Your task to perform on an android device: toggle pop-ups in chrome Image 0: 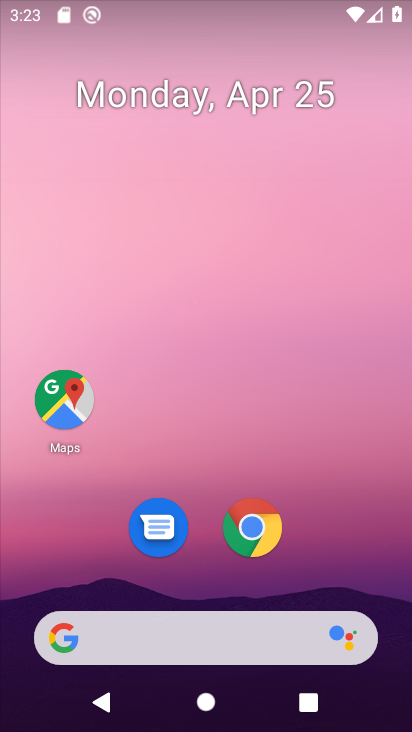
Step 0: click (253, 522)
Your task to perform on an android device: toggle pop-ups in chrome Image 1: 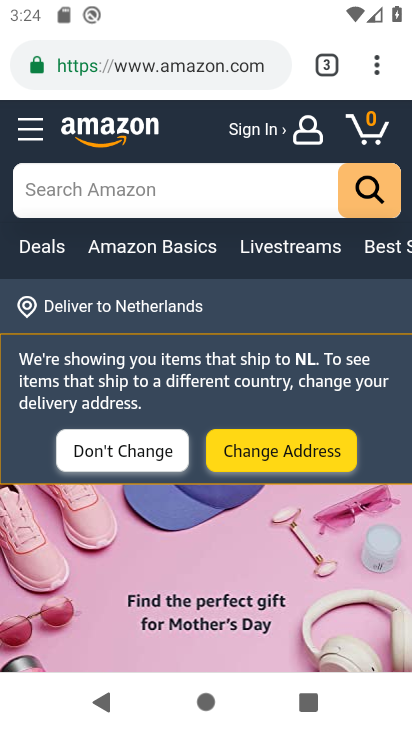
Step 1: click (373, 66)
Your task to perform on an android device: toggle pop-ups in chrome Image 2: 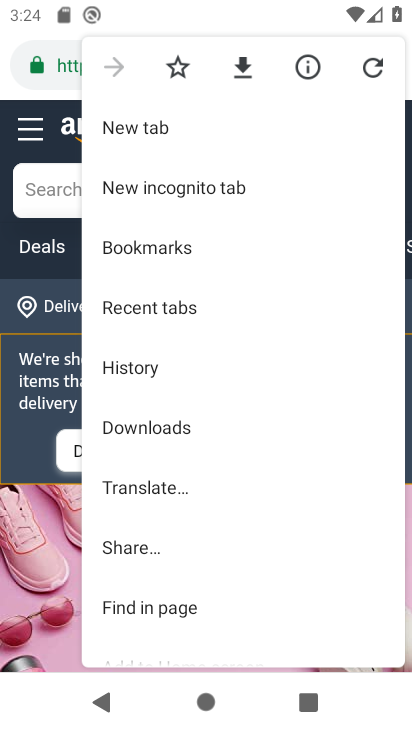
Step 2: drag from (237, 607) to (246, 295)
Your task to perform on an android device: toggle pop-ups in chrome Image 3: 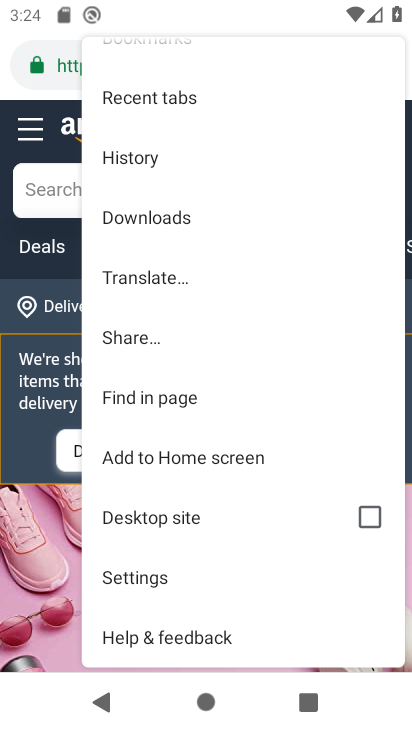
Step 3: click (113, 572)
Your task to perform on an android device: toggle pop-ups in chrome Image 4: 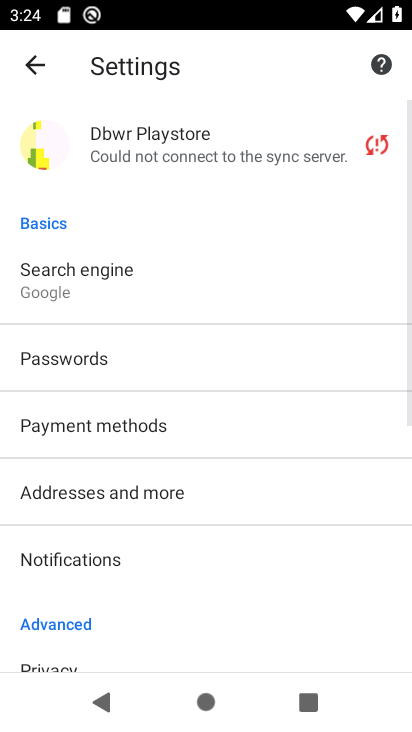
Step 4: drag from (175, 604) to (184, 185)
Your task to perform on an android device: toggle pop-ups in chrome Image 5: 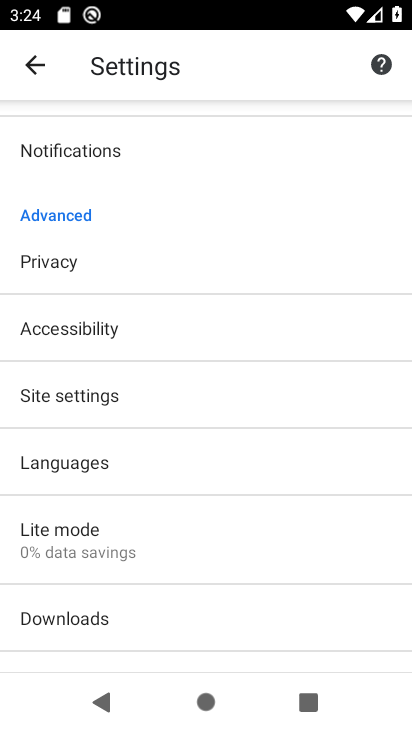
Step 5: click (71, 390)
Your task to perform on an android device: toggle pop-ups in chrome Image 6: 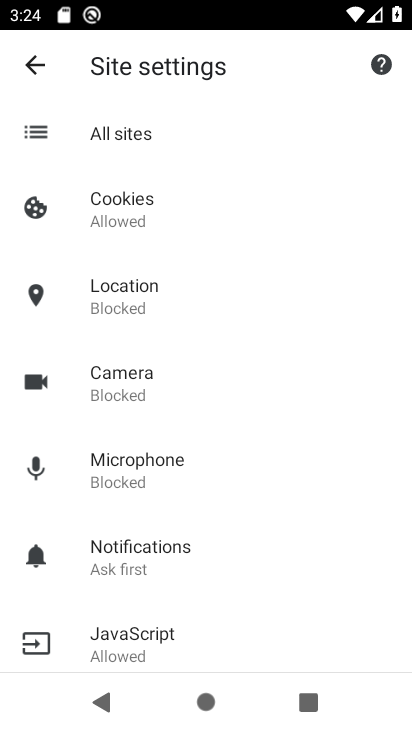
Step 6: drag from (238, 605) to (236, 267)
Your task to perform on an android device: toggle pop-ups in chrome Image 7: 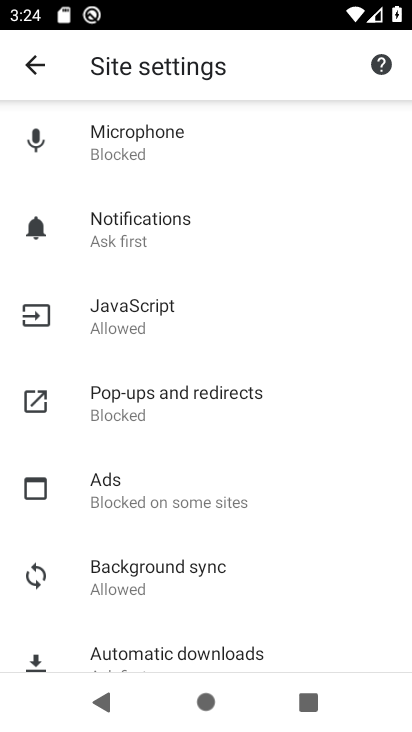
Step 7: click (136, 401)
Your task to perform on an android device: toggle pop-ups in chrome Image 8: 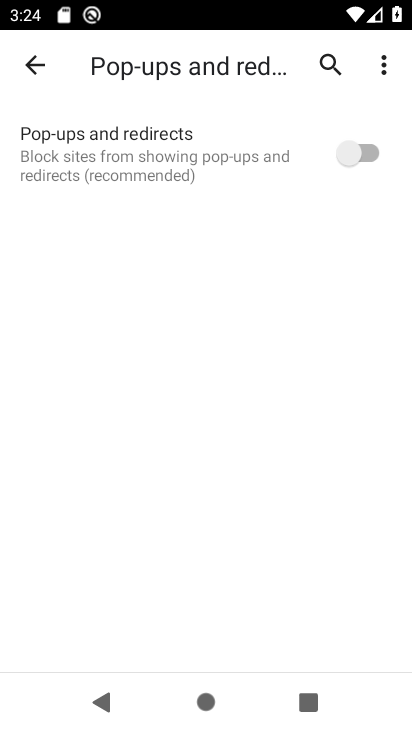
Step 8: click (362, 145)
Your task to perform on an android device: toggle pop-ups in chrome Image 9: 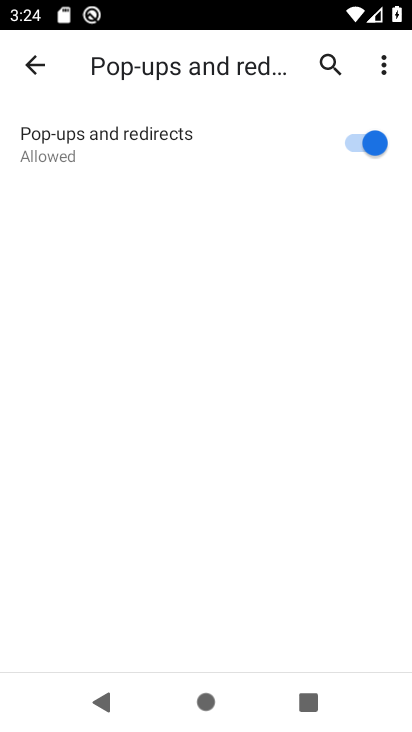
Step 9: task complete